Your task to perform on an android device: Go to accessibility settings Image 0: 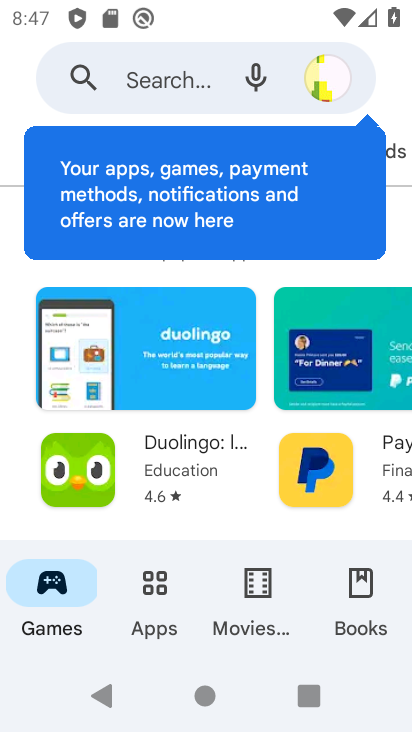
Step 0: press home button
Your task to perform on an android device: Go to accessibility settings Image 1: 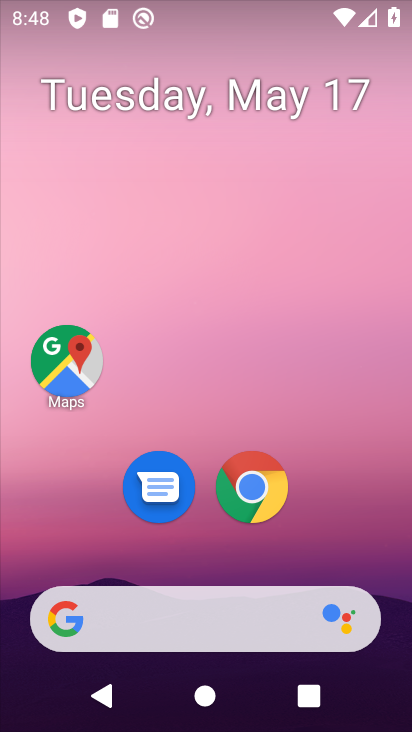
Step 1: drag from (232, 657) to (253, 261)
Your task to perform on an android device: Go to accessibility settings Image 2: 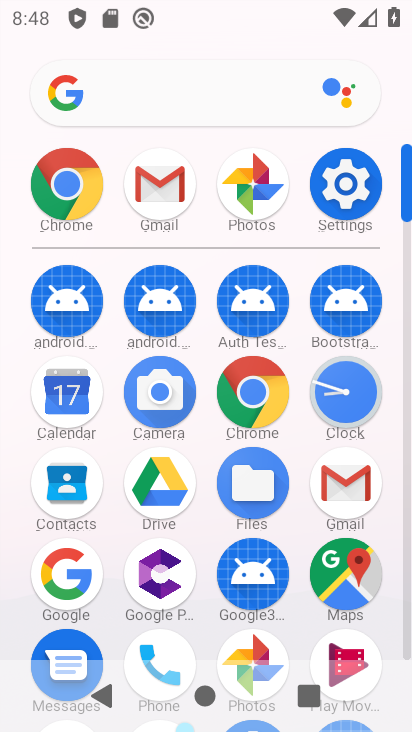
Step 2: click (362, 176)
Your task to perform on an android device: Go to accessibility settings Image 3: 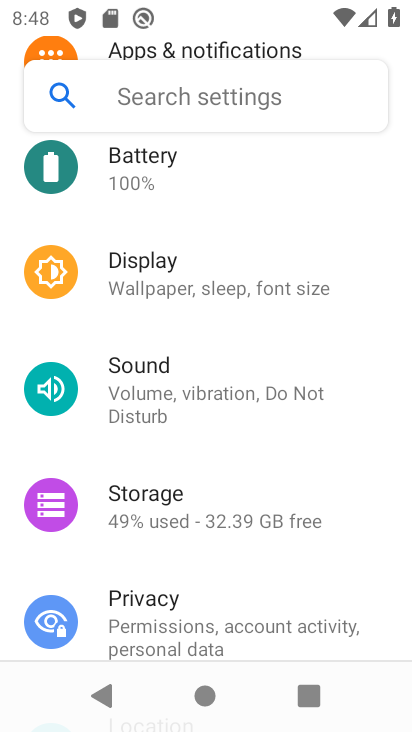
Step 3: click (171, 105)
Your task to perform on an android device: Go to accessibility settings Image 4: 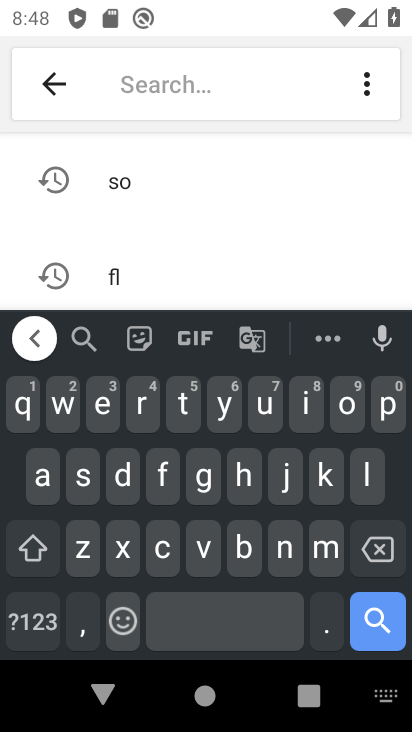
Step 4: click (47, 480)
Your task to perform on an android device: Go to accessibility settings Image 5: 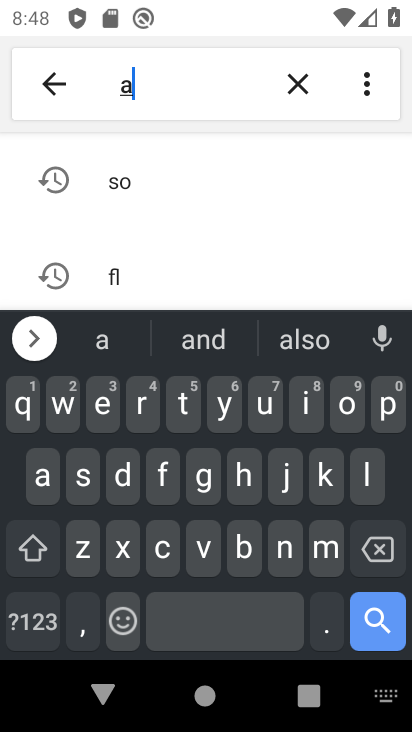
Step 5: click (162, 556)
Your task to perform on an android device: Go to accessibility settings Image 6: 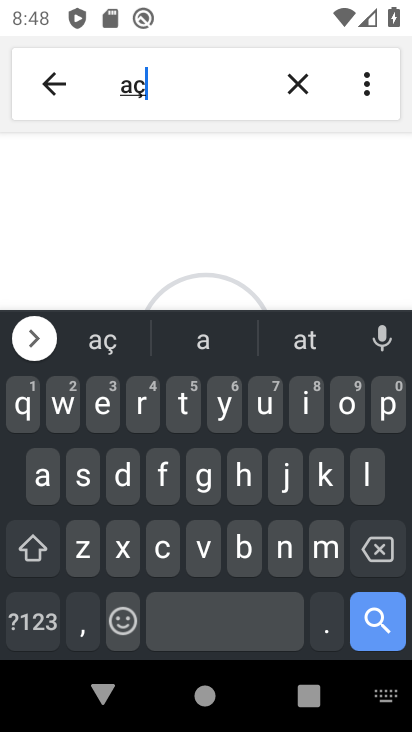
Step 6: click (390, 552)
Your task to perform on an android device: Go to accessibility settings Image 7: 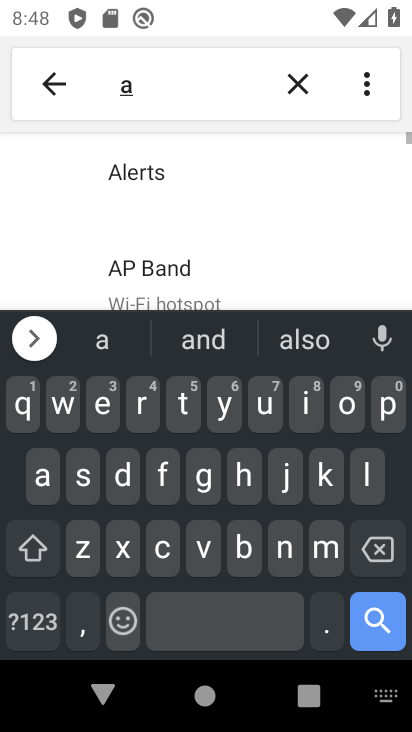
Step 7: click (156, 557)
Your task to perform on an android device: Go to accessibility settings Image 8: 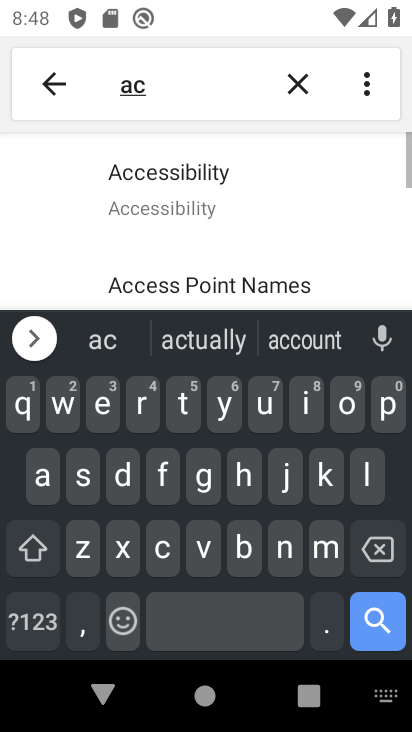
Step 8: click (147, 178)
Your task to perform on an android device: Go to accessibility settings Image 9: 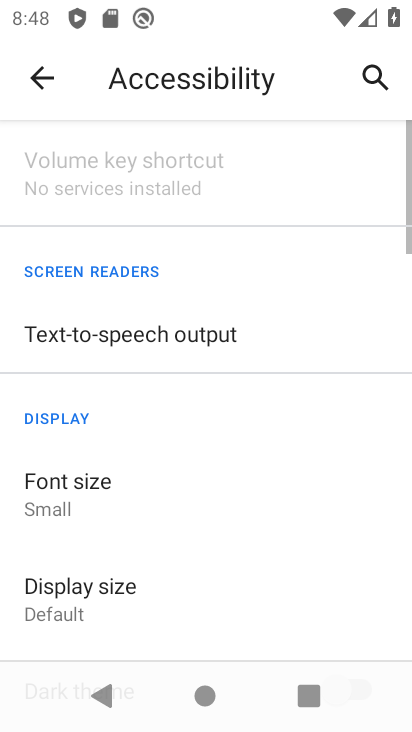
Step 9: task complete